Your task to perform on an android device: stop showing notifications on the lock screen Image 0: 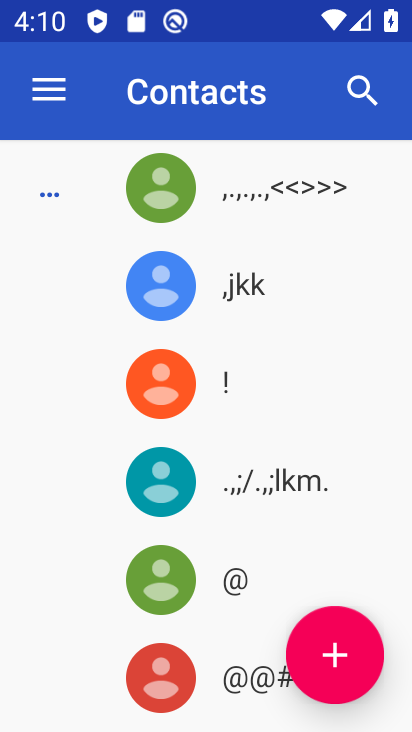
Step 0: press home button
Your task to perform on an android device: stop showing notifications on the lock screen Image 1: 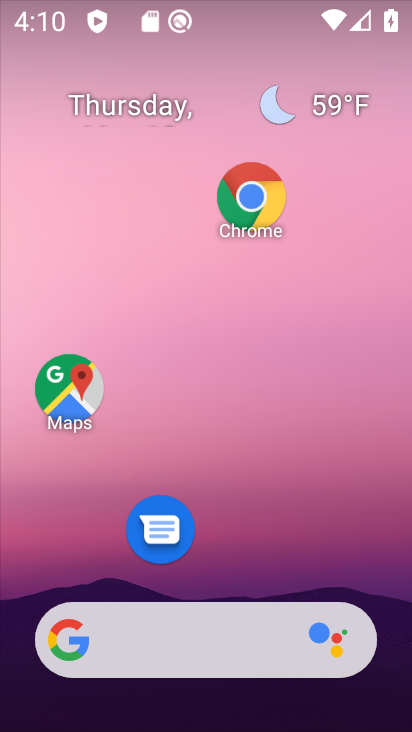
Step 1: drag from (217, 573) to (216, 88)
Your task to perform on an android device: stop showing notifications on the lock screen Image 2: 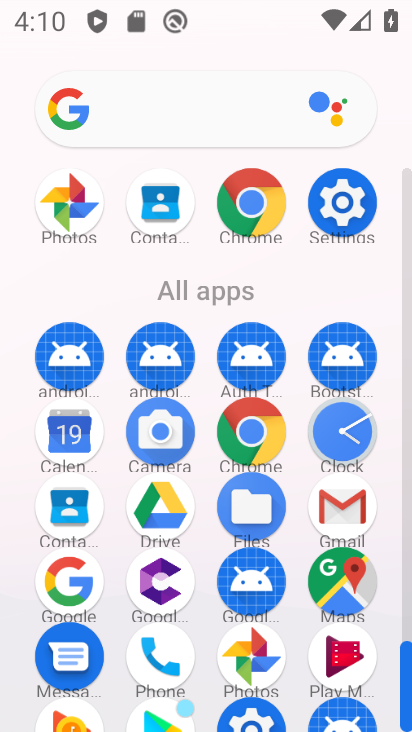
Step 2: click (340, 196)
Your task to perform on an android device: stop showing notifications on the lock screen Image 3: 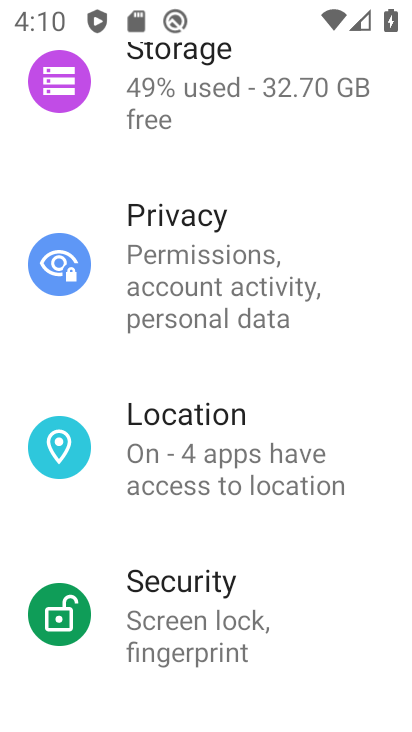
Step 3: drag from (202, 143) to (208, 602)
Your task to perform on an android device: stop showing notifications on the lock screen Image 4: 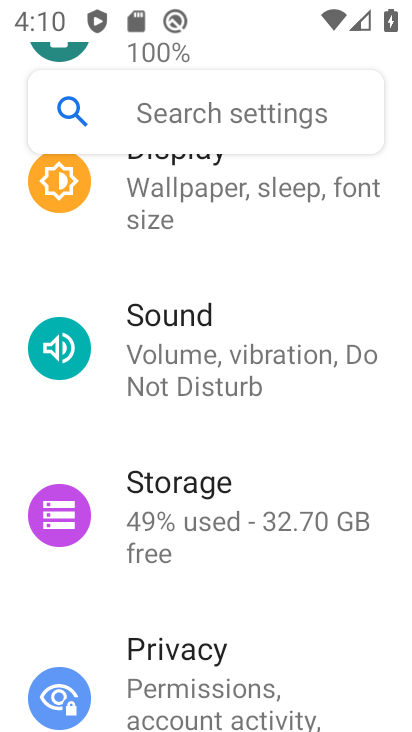
Step 4: drag from (211, 167) to (191, 655)
Your task to perform on an android device: stop showing notifications on the lock screen Image 5: 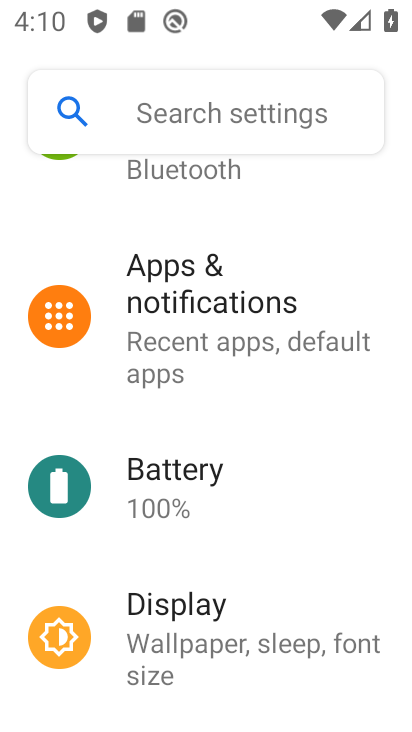
Step 5: click (210, 323)
Your task to perform on an android device: stop showing notifications on the lock screen Image 6: 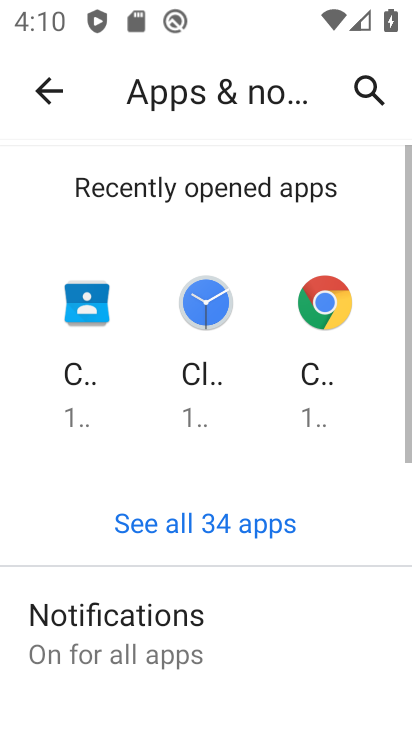
Step 6: click (227, 628)
Your task to perform on an android device: stop showing notifications on the lock screen Image 7: 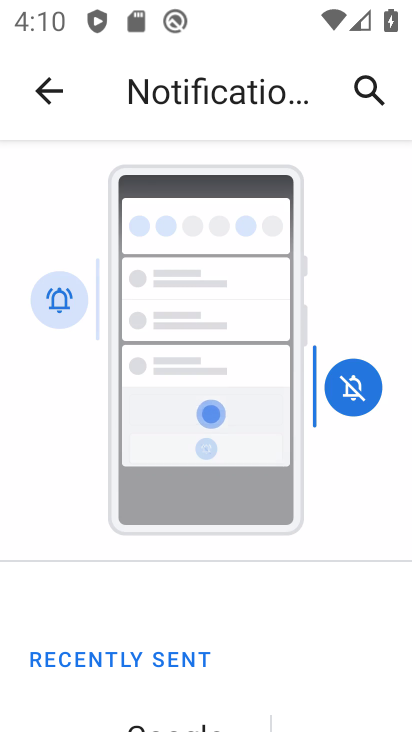
Step 7: drag from (234, 663) to (252, 213)
Your task to perform on an android device: stop showing notifications on the lock screen Image 8: 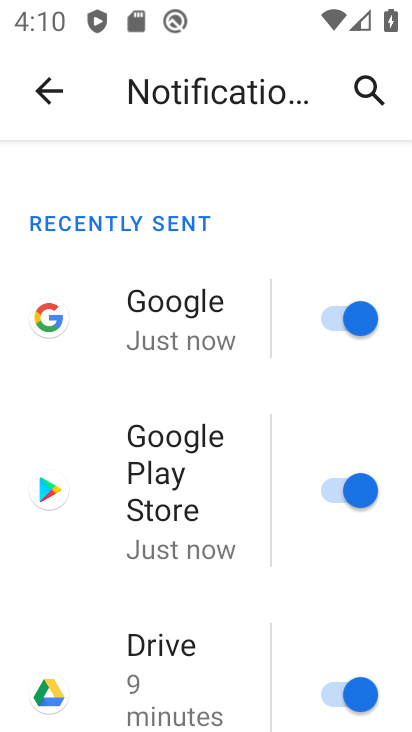
Step 8: drag from (218, 661) to (208, 281)
Your task to perform on an android device: stop showing notifications on the lock screen Image 9: 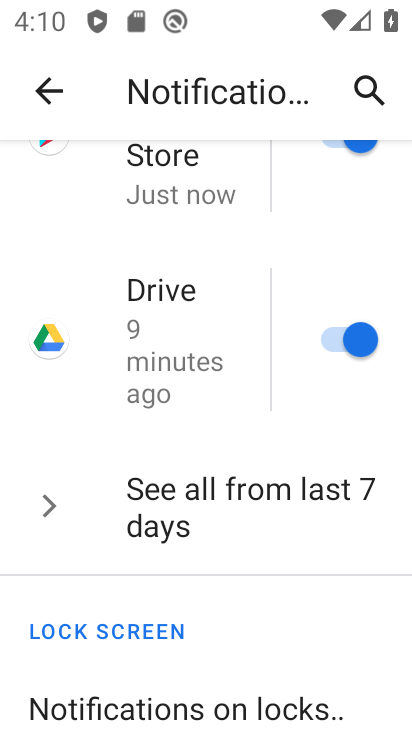
Step 9: click (279, 704)
Your task to perform on an android device: stop showing notifications on the lock screen Image 10: 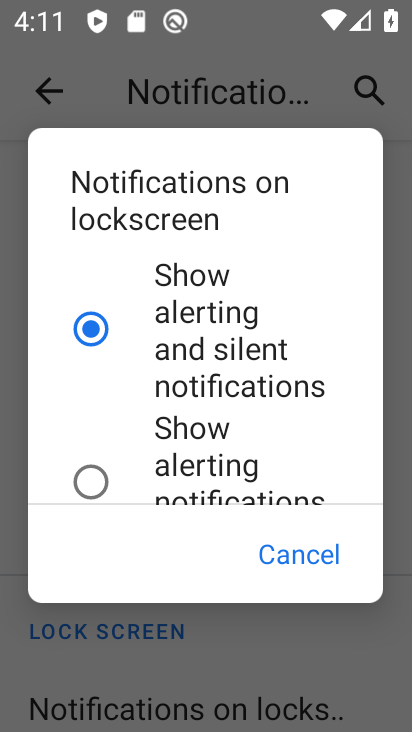
Step 10: drag from (195, 476) to (212, 187)
Your task to perform on an android device: stop showing notifications on the lock screen Image 11: 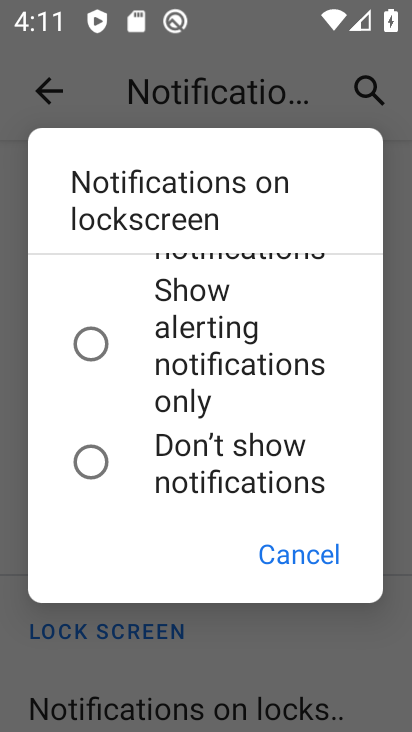
Step 11: click (94, 454)
Your task to perform on an android device: stop showing notifications on the lock screen Image 12: 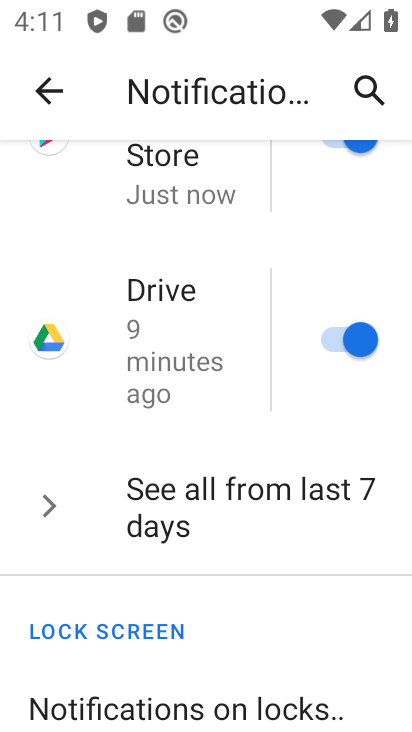
Step 12: task complete